Your task to perform on an android device: set the stopwatch Image 0: 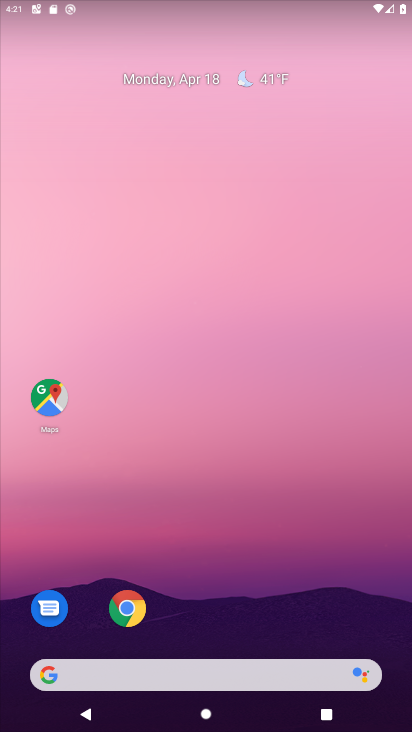
Step 0: click (372, 501)
Your task to perform on an android device: set the stopwatch Image 1: 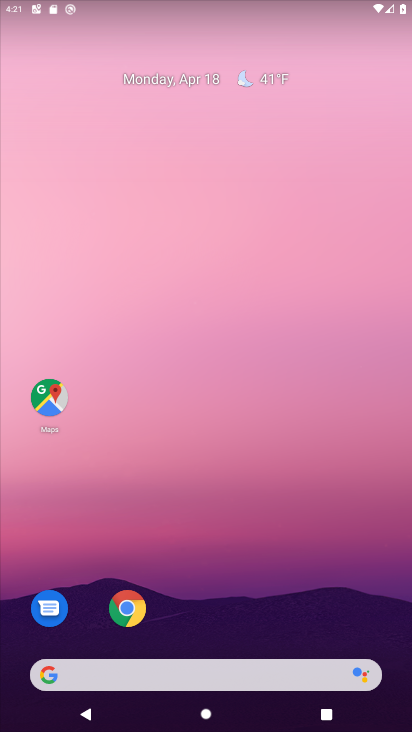
Step 1: drag from (202, 657) to (256, 5)
Your task to perform on an android device: set the stopwatch Image 2: 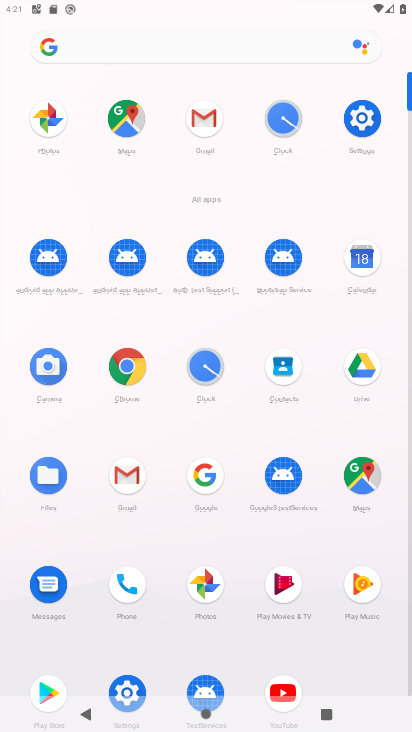
Step 2: click (291, 116)
Your task to perform on an android device: set the stopwatch Image 3: 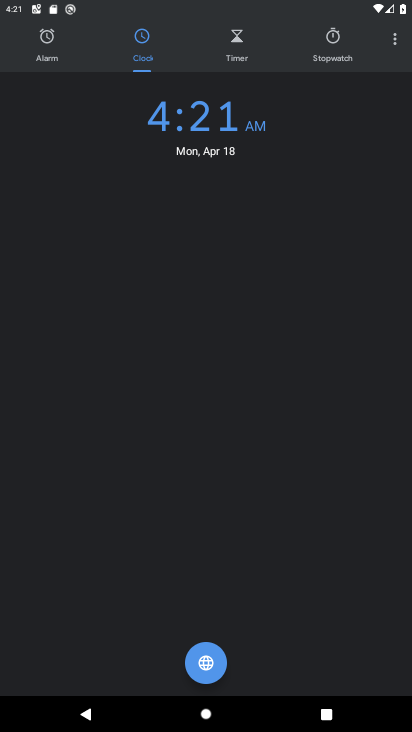
Step 3: click (326, 50)
Your task to perform on an android device: set the stopwatch Image 4: 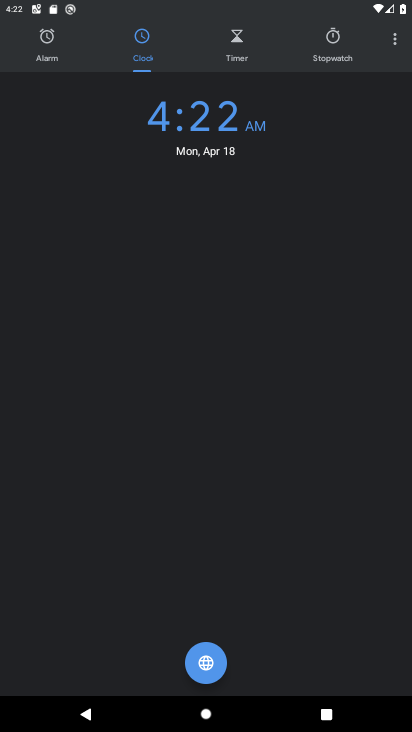
Step 4: click (330, 49)
Your task to perform on an android device: set the stopwatch Image 5: 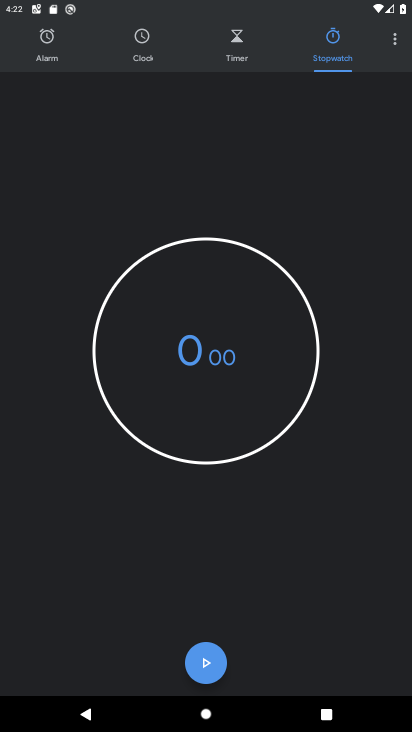
Step 5: click (207, 666)
Your task to perform on an android device: set the stopwatch Image 6: 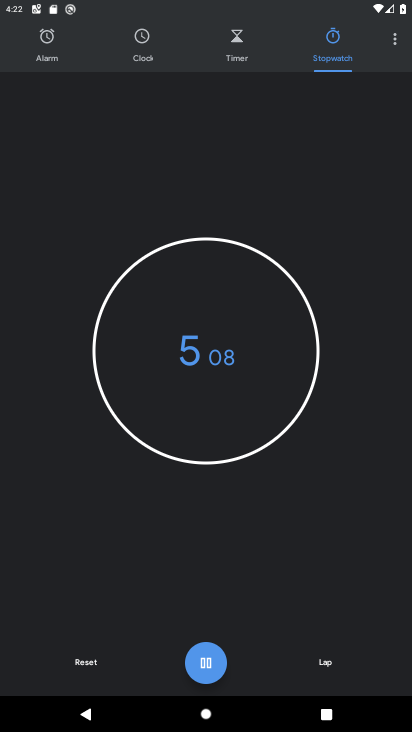
Step 6: click (210, 661)
Your task to perform on an android device: set the stopwatch Image 7: 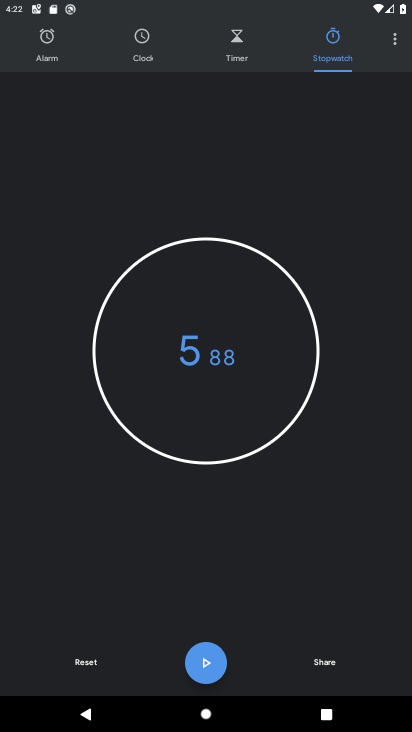
Step 7: task complete